Your task to perform on an android device: toggle priority inbox in the gmail app Image 0: 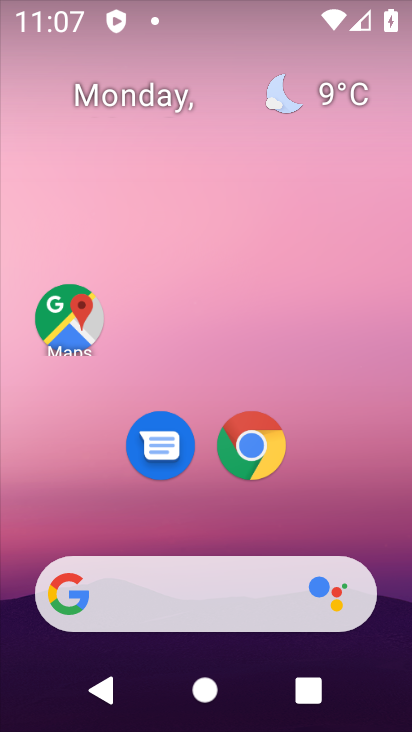
Step 0: drag from (300, 572) to (337, 42)
Your task to perform on an android device: toggle priority inbox in the gmail app Image 1: 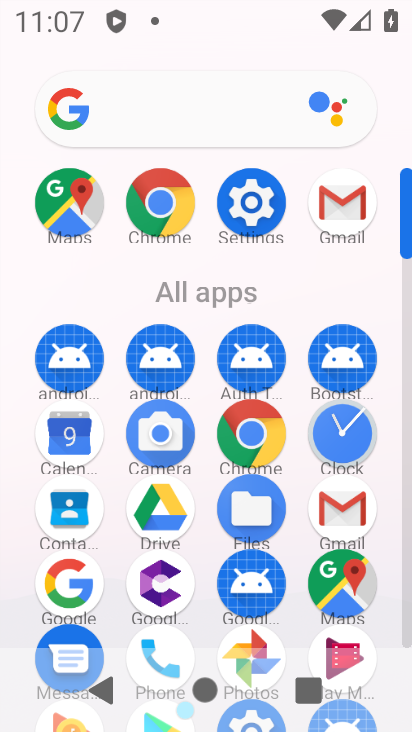
Step 1: click (360, 502)
Your task to perform on an android device: toggle priority inbox in the gmail app Image 2: 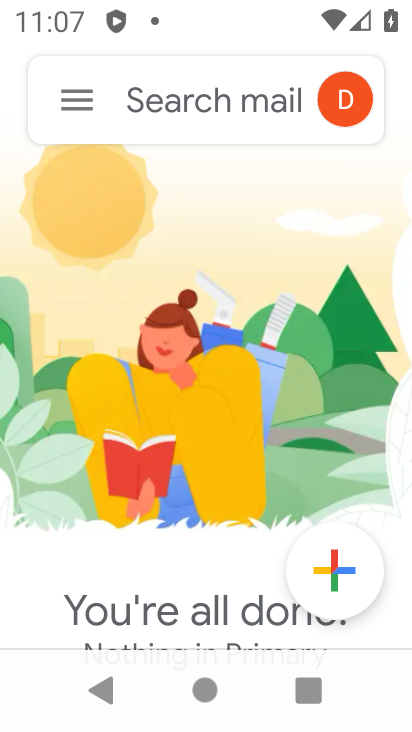
Step 2: press home button
Your task to perform on an android device: toggle priority inbox in the gmail app Image 3: 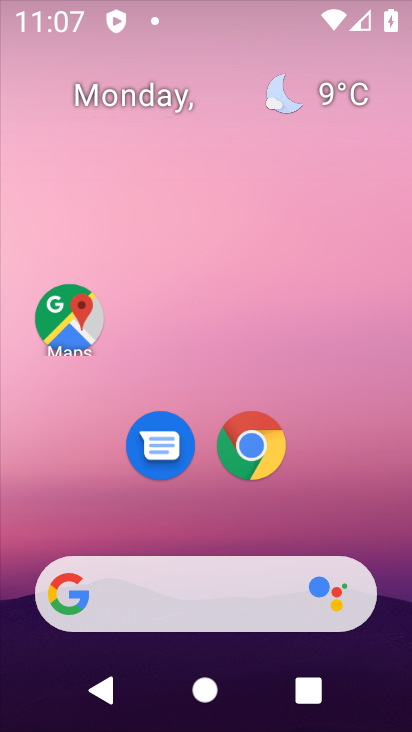
Step 3: drag from (286, 669) to (301, 1)
Your task to perform on an android device: toggle priority inbox in the gmail app Image 4: 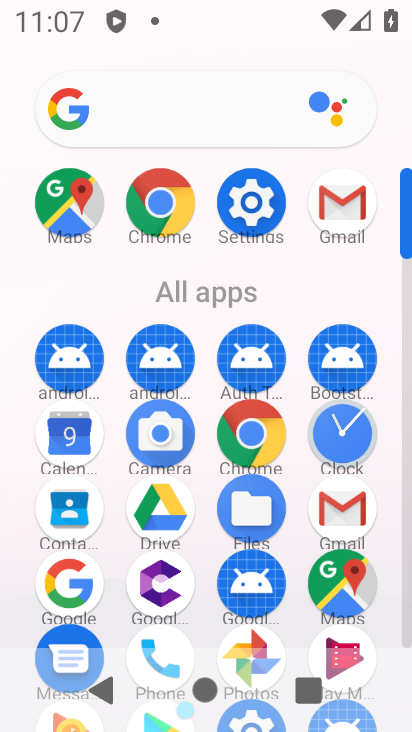
Step 4: click (348, 527)
Your task to perform on an android device: toggle priority inbox in the gmail app Image 5: 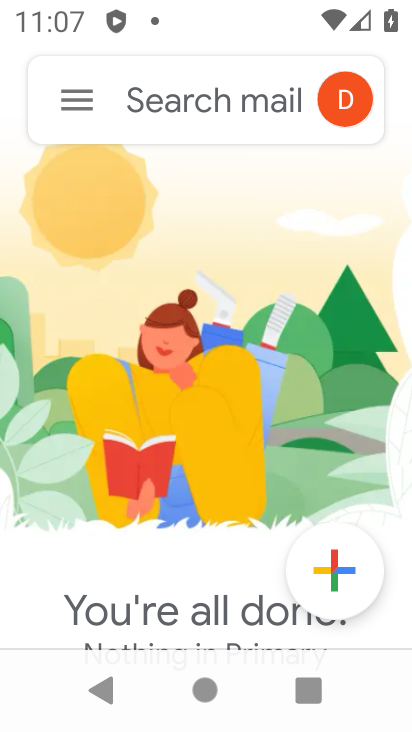
Step 5: click (82, 108)
Your task to perform on an android device: toggle priority inbox in the gmail app Image 6: 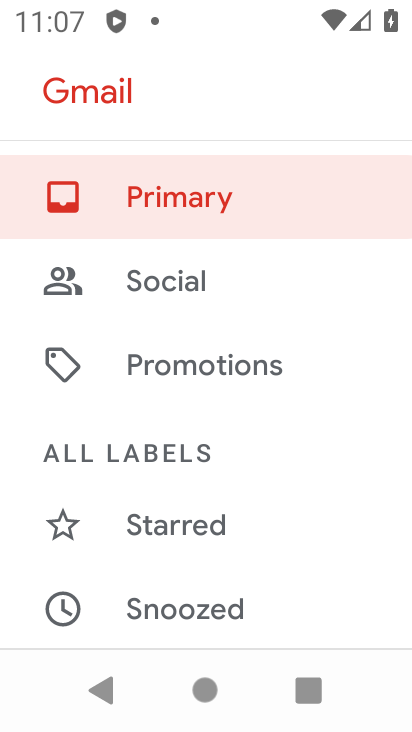
Step 6: drag from (196, 623) to (210, 427)
Your task to perform on an android device: toggle priority inbox in the gmail app Image 7: 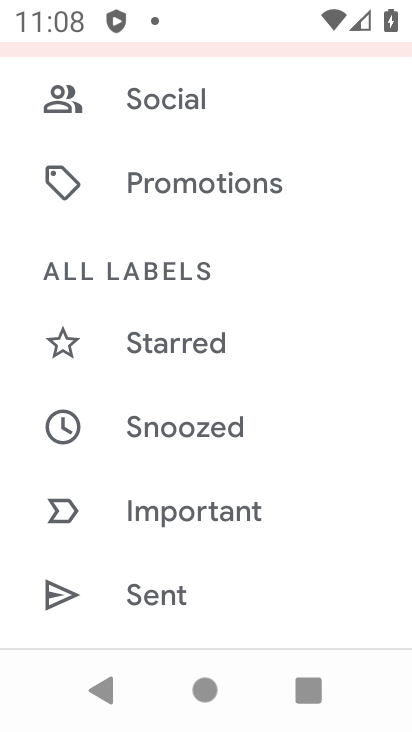
Step 7: drag from (192, 611) to (227, 89)
Your task to perform on an android device: toggle priority inbox in the gmail app Image 8: 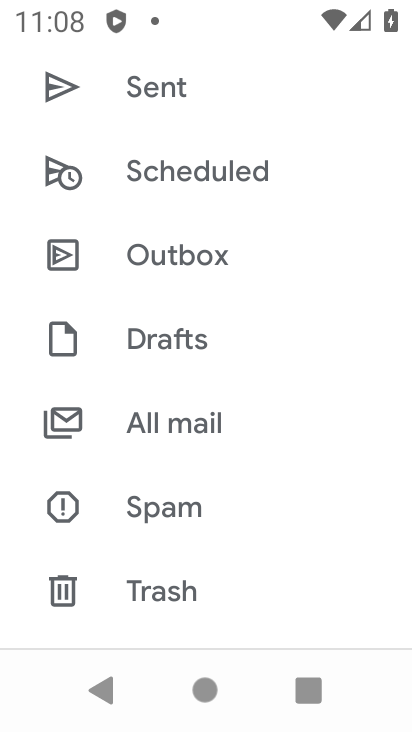
Step 8: drag from (220, 591) to (249, 147)
Your task to perform on an android device: toggle priority inbox in the gmail app Image 9: 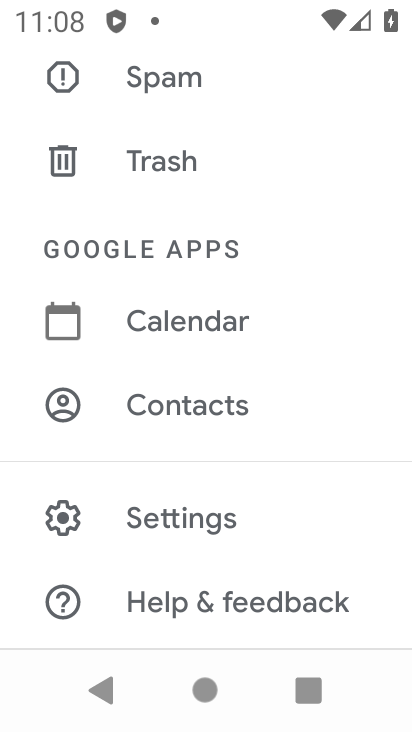
Step 9: drag from (271, 643) to (277, 557)
Your task to perform on an android device: toggle priority inbox in the gmail app Image 10: 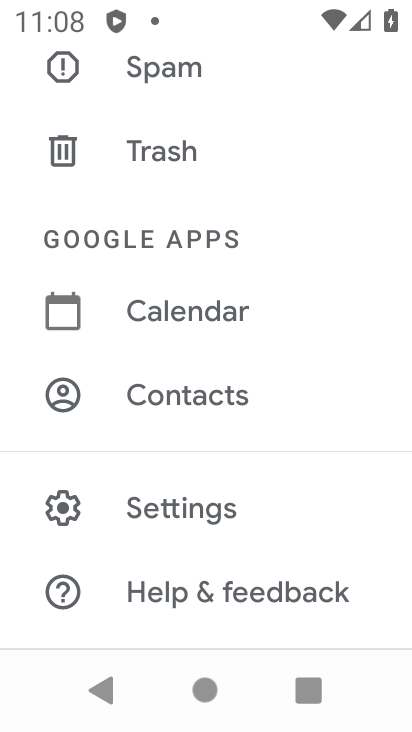
Step 10: click (276, 526)
Your task to perform on an android device: toggle priority inbox in the gmail app Image 11: 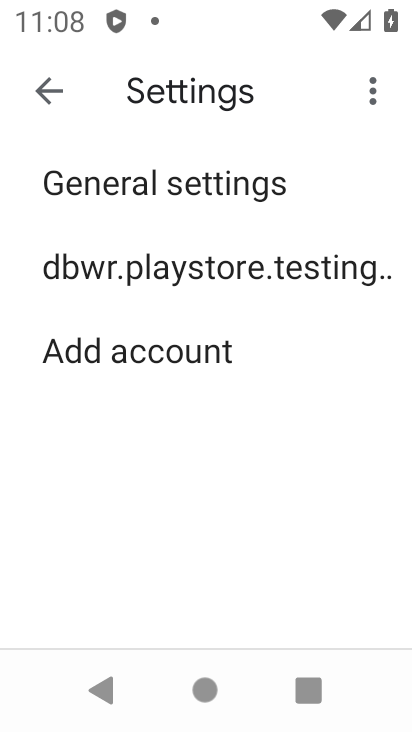
Step 11: click (240, 267)
Your task to perform on an android device: toggle priority inbox in the gmail app Image 12: 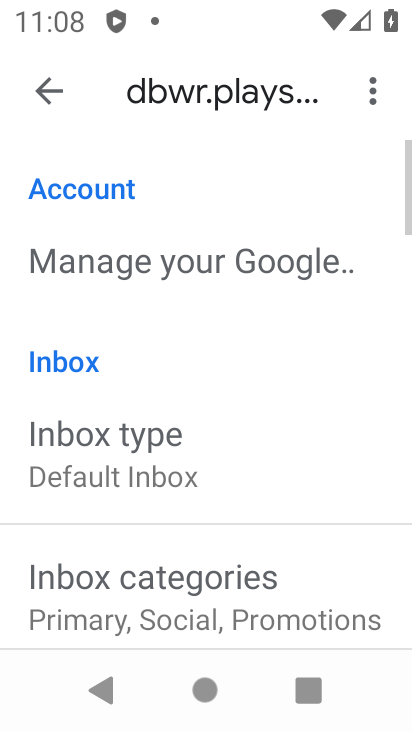
Step 12: click (162, 478)
Your task to perform on an android device: toggle priority inbox in the gmail app Image 13: 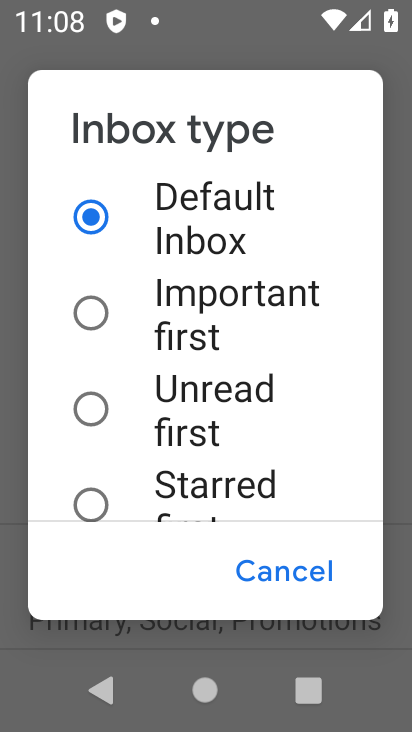
Step 13: drag from (176, 453) to (222, 122)
Your task to perform on an android device: toggle priority inbox in the gmail app Image 14: 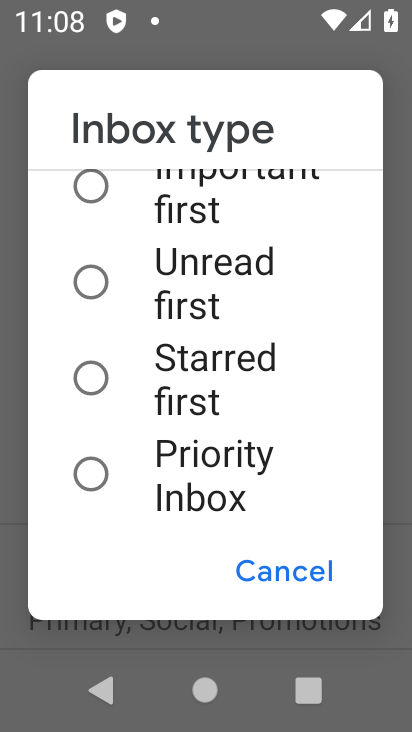
Step 14: click (106, 477)
Your task to perform on an android device: toggle priority inbox in the gmail app Image 15: 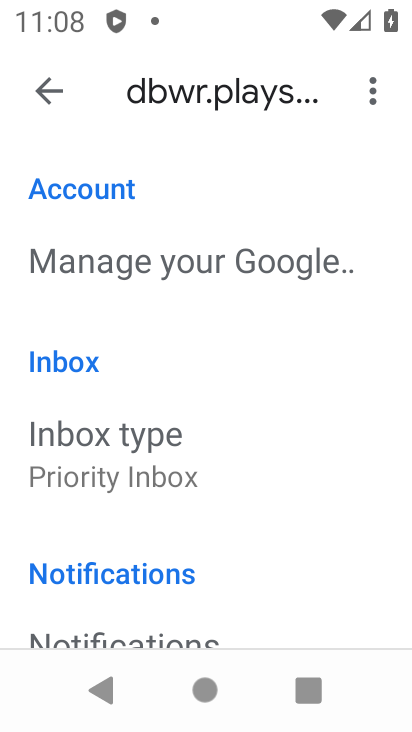
Step 15: click (390, 297)
Your task to perform on an android device: toggle priority inbox in the gmail app Image 16: 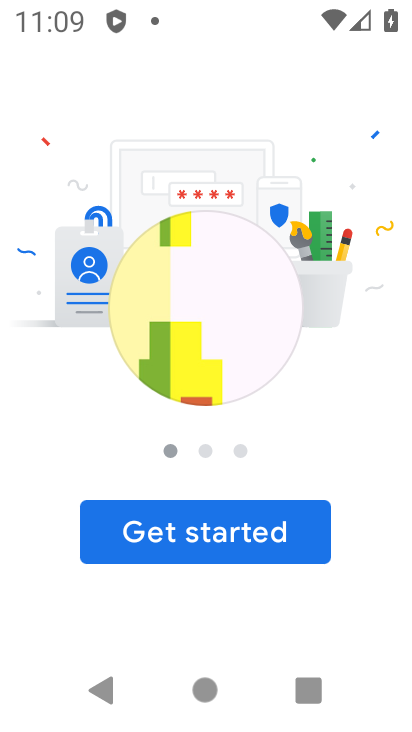
Step 16: task complete